Your task to perform on an android device: Open battery settings Image 0: 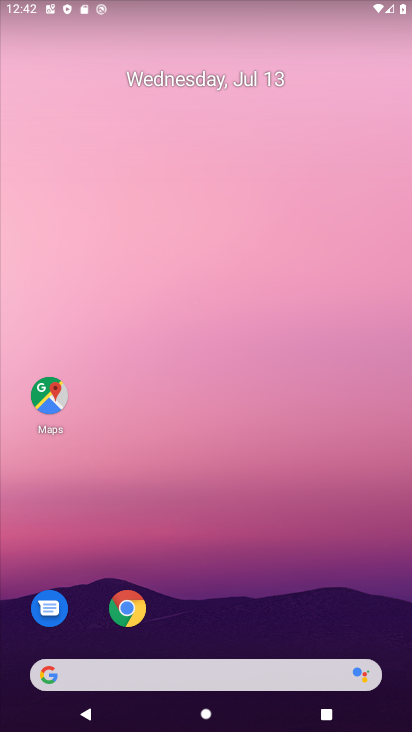
Step 0: drag from (260, 610) to (299, 55)
Your task to perform on an android device: Open battery settings Image 1: 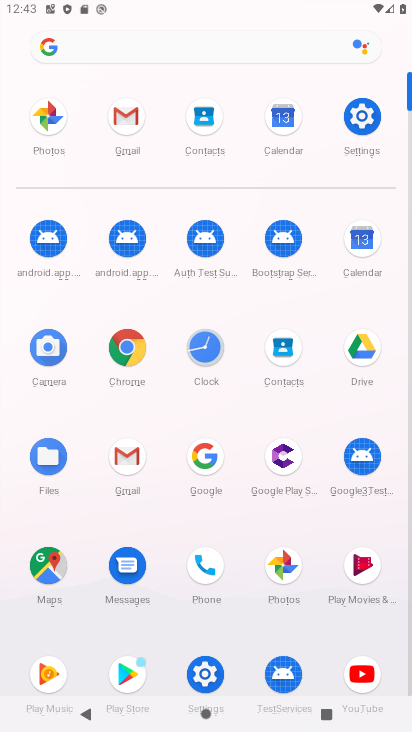
Step 1: click (355, 110)
Your task to perform on an android device: Open battery settings Image 2: 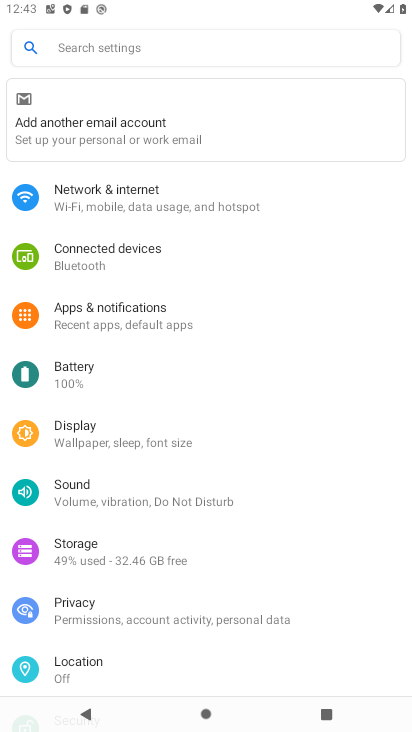
Step 2: click (76, 372)
Your task to perform on an android device: Open battery settings Image 3: 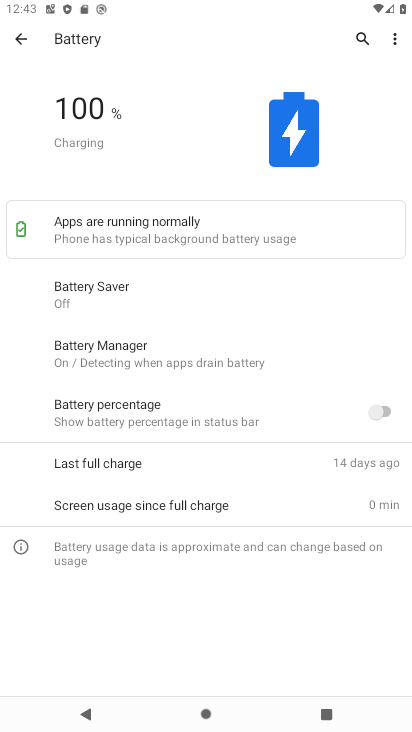
Step 3: task complete